Your task to perform on an android device: Show me the alarms in the clock app Image 0: 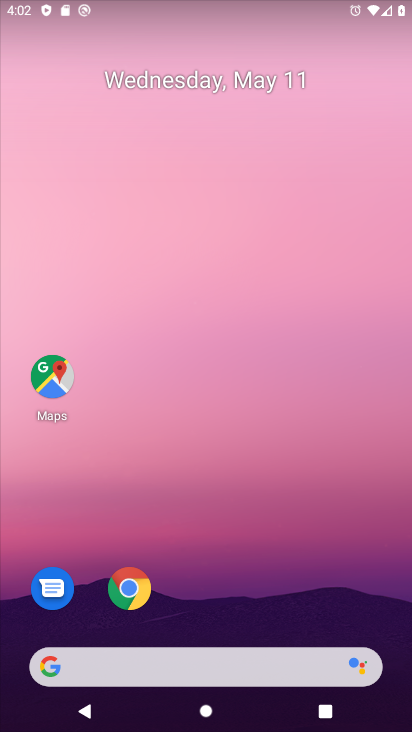
Step 0: click (294, 147)
Your task to perform on an android device: Show me the alarms in the clock app Image 1: 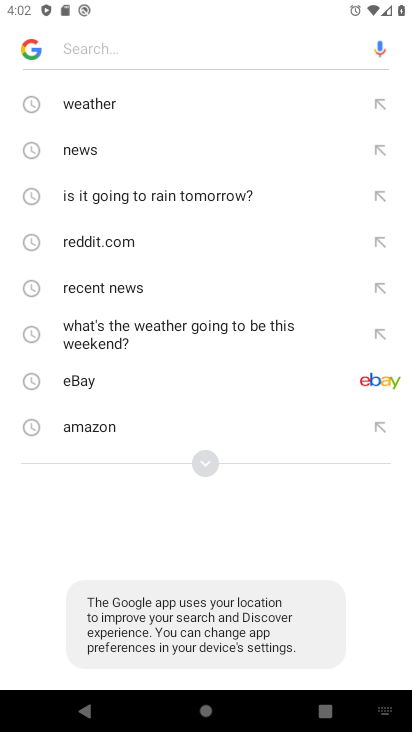
Step 1: press back button
Your task to perform on an android device: Show me the alarms in the clock app Image 2: 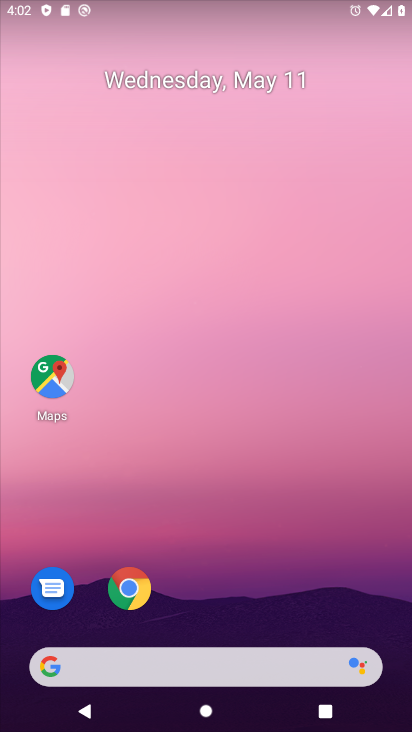
Step 2: drag from (255, 608) to (208, 80)
Your task to perform on an android device: Show me the alarms in the clock app Image 3: 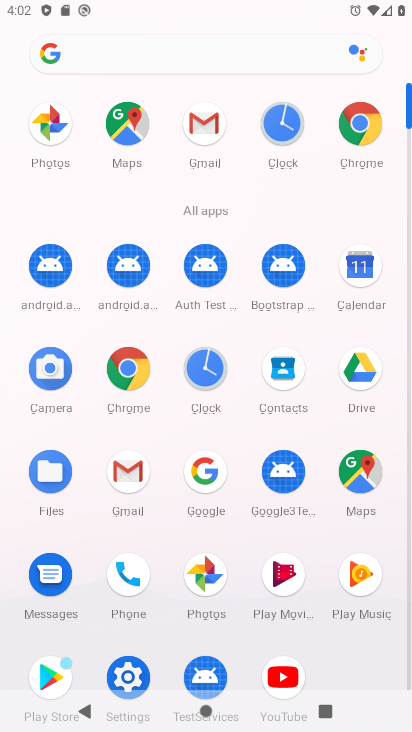
Step 3: click (269, 129)
Your task to perform on an android device: Show me the alarms in the clock app Image 4: 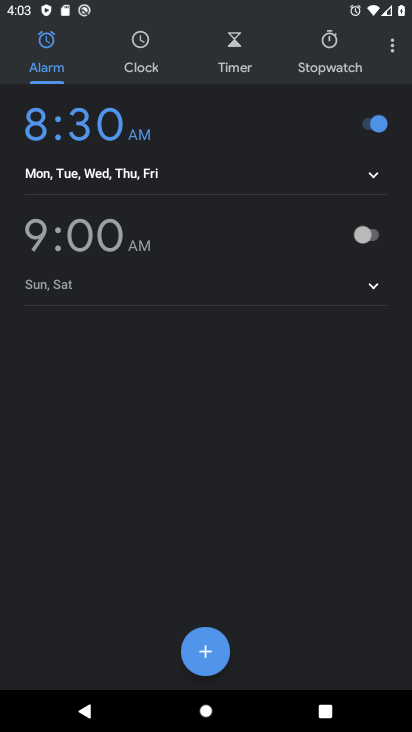
Step 4: click (74, 126)
Your task to perform on an android device: Show me the alarms in the clock app Image 5: 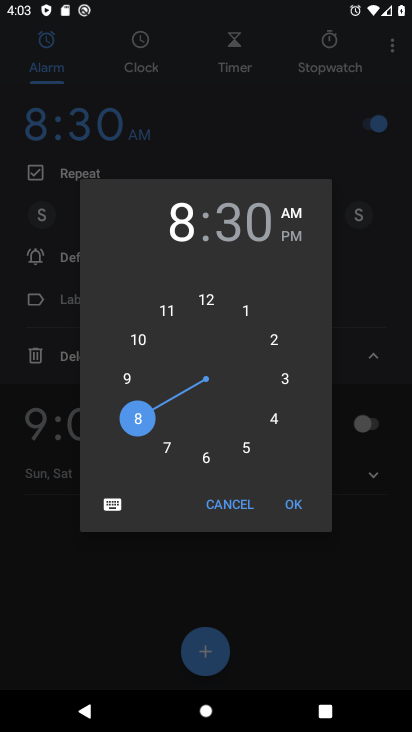
Step 5: task complete